Your task to perform on an android device: Go to CNN.com Image 0: 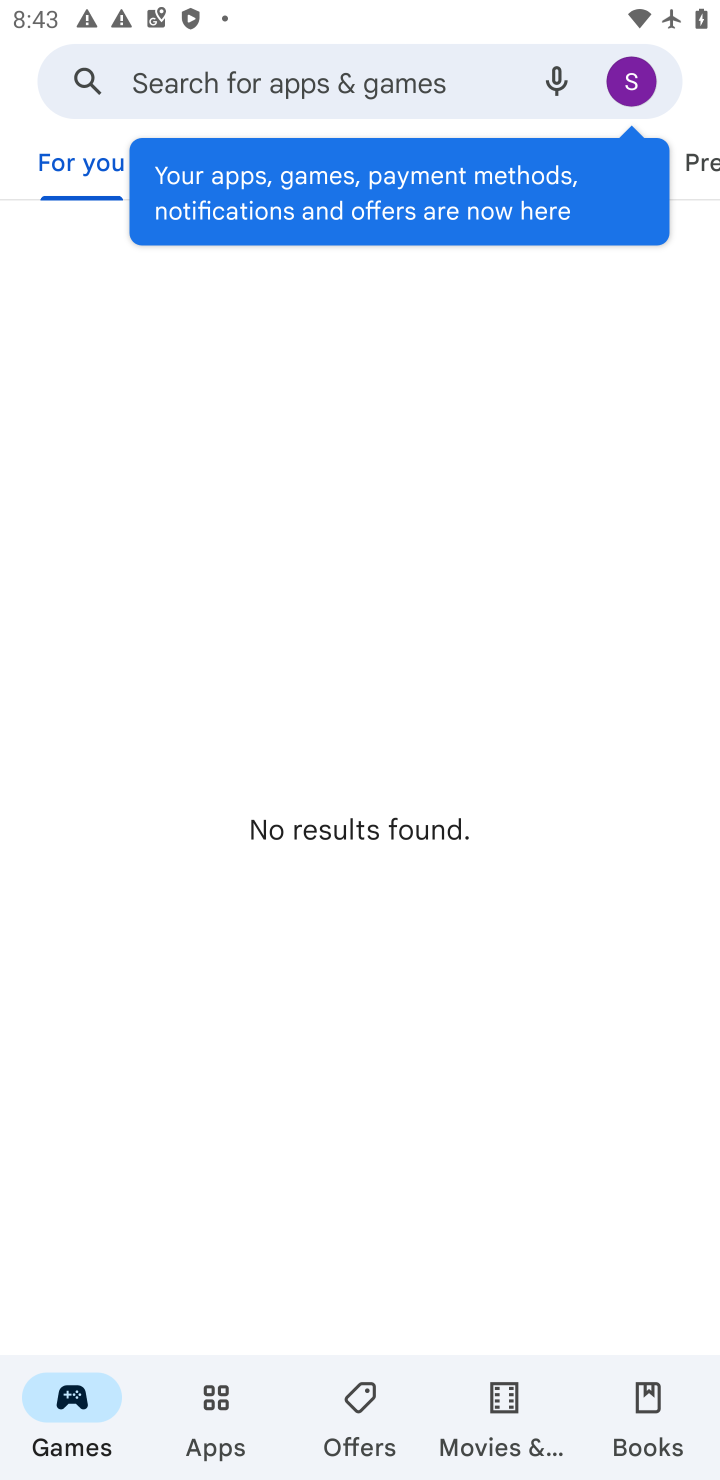
Step 0: press home button
Your task to perform on an android device: Go to CNN.com Image 1: 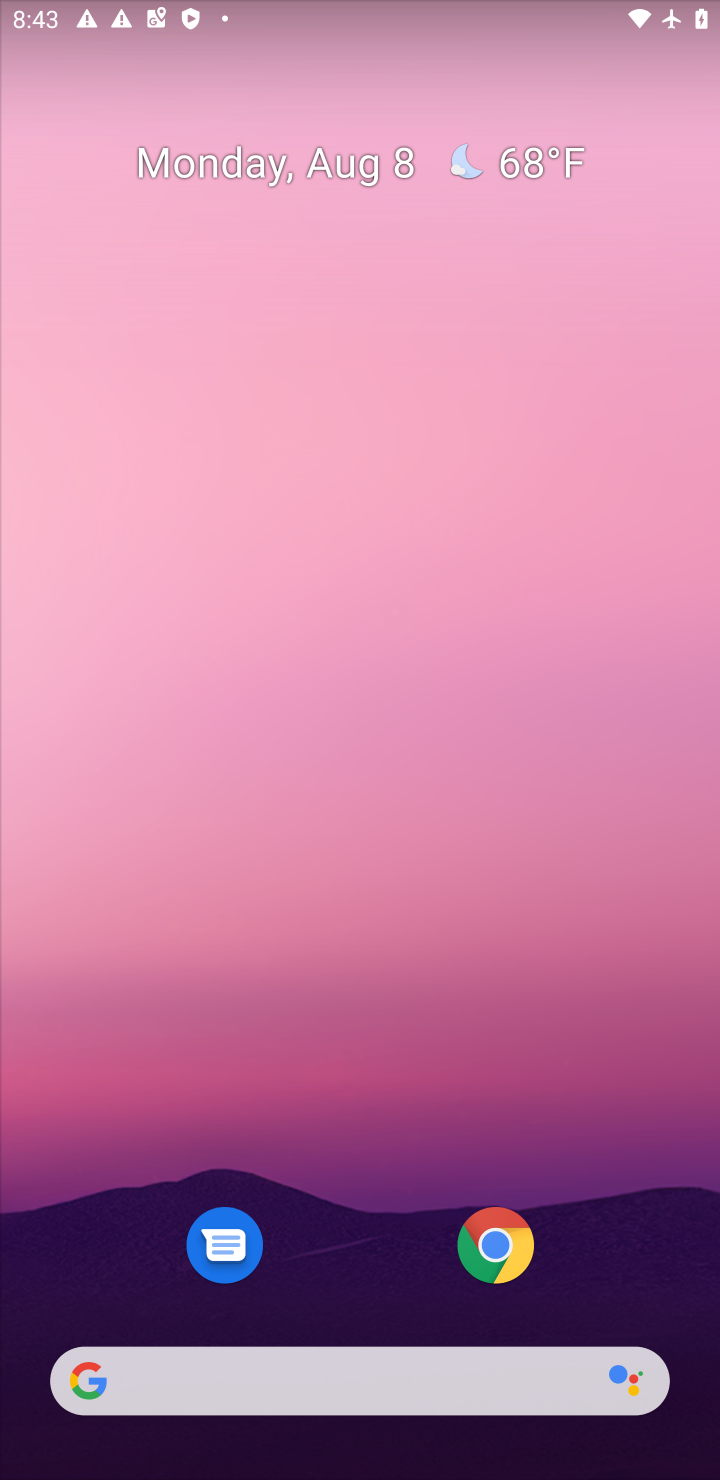
Step 1: click (454, 1281)
Your task to perform on an android device: Go to CNN.com Image 2: 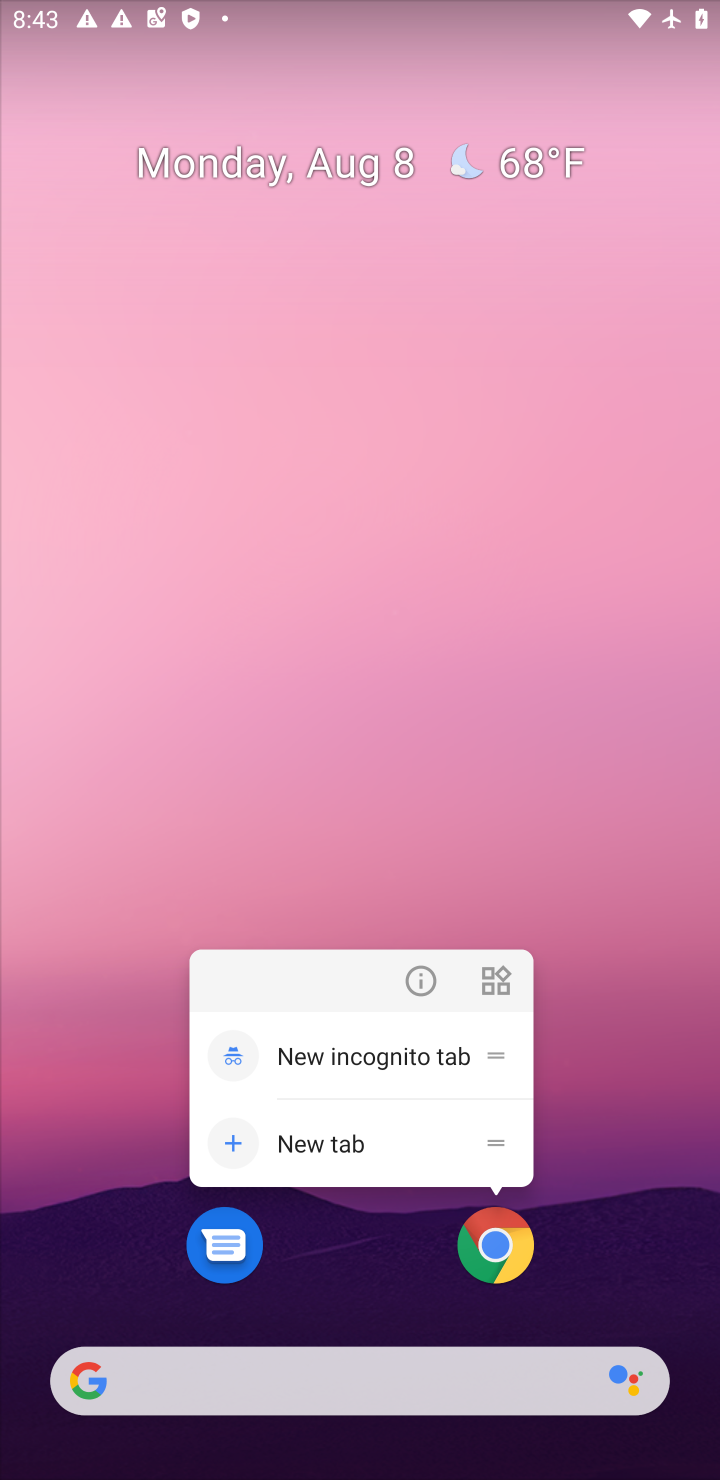
Step 2: click (494, 1265)
Your task to perform on an android device: Go to CNN.com Image 3: 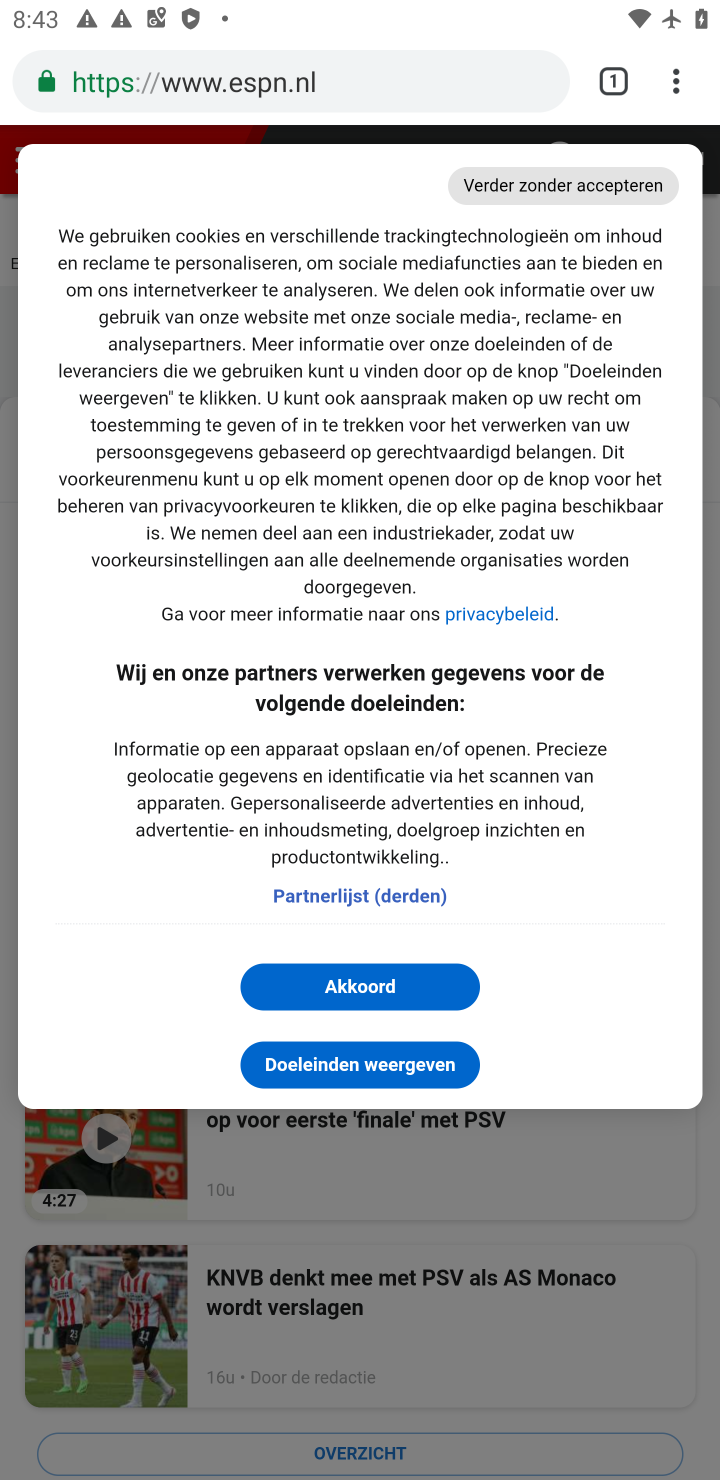
Step 3: click (280, 75)
Your task to perform on an android device: Go to CNN.com Image 4: 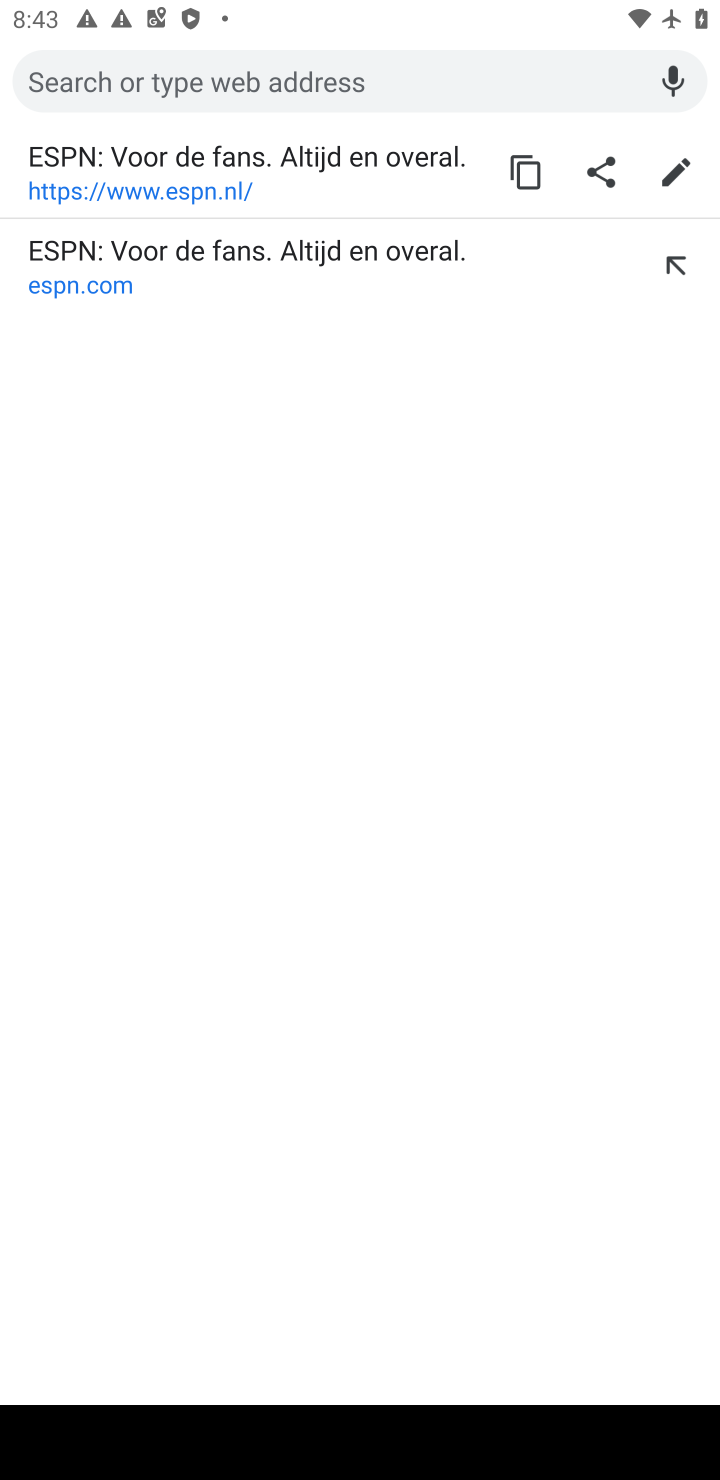
Step 4: type "CNN.com"
Your task to perform on an android device: Go to CNN.com Image 5: 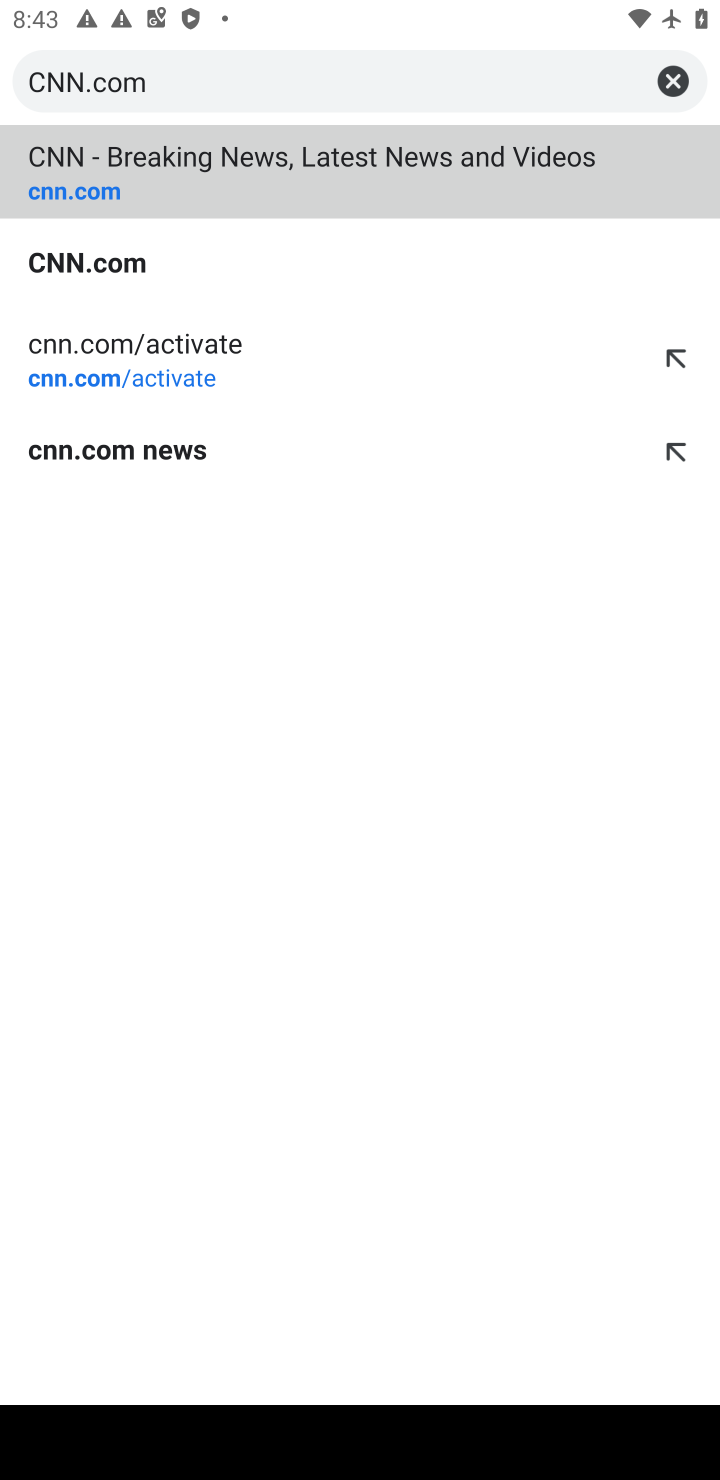
Step 5: click (189, 178)
Your task to perform on an android device: Go to CNN.com Image 6: 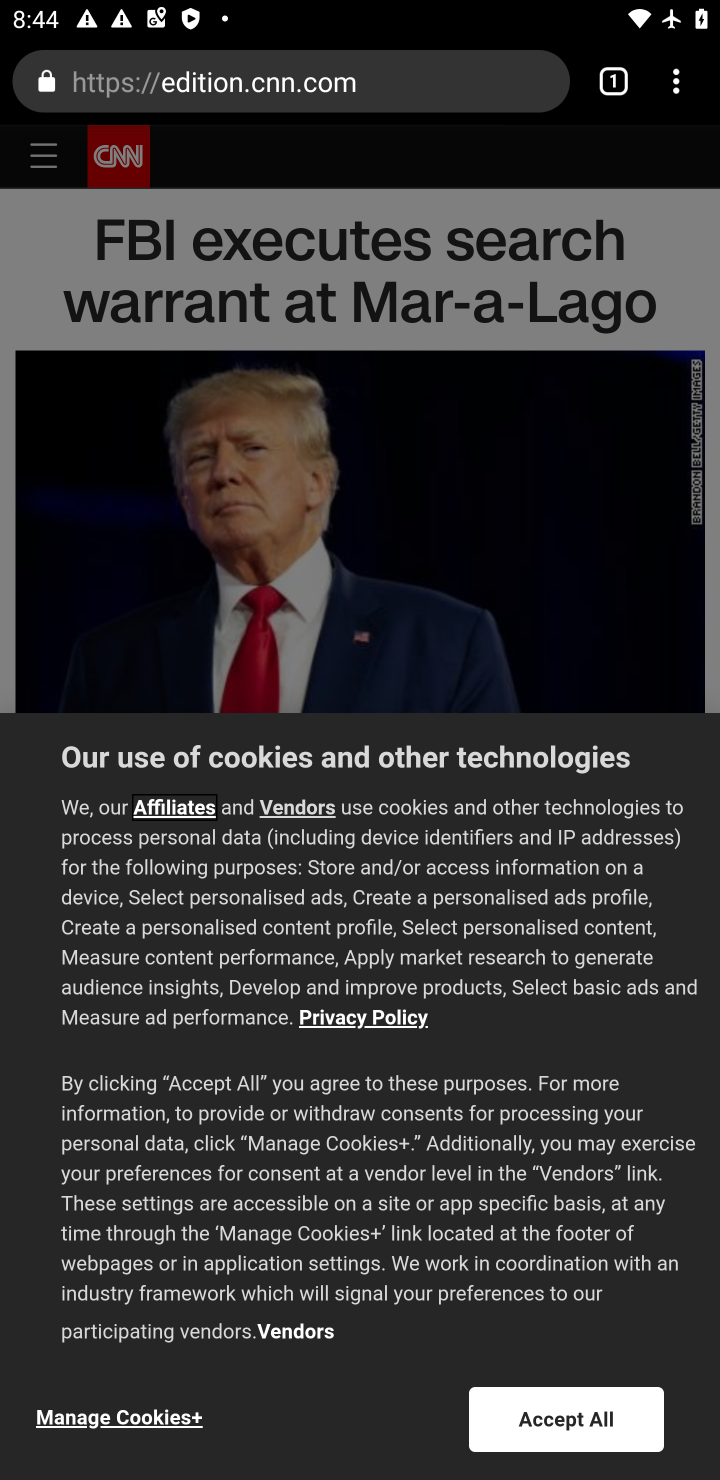
Step 6: task complete